Your task to perform on an android device: Open Android settings Image 0: 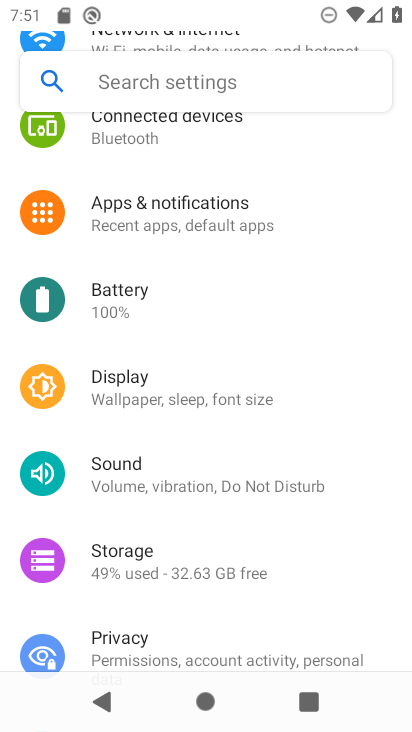
Step 0: drag from (255, 515) to (246, 142)
Your task to perform on an android device: Open Android settings Image 1: 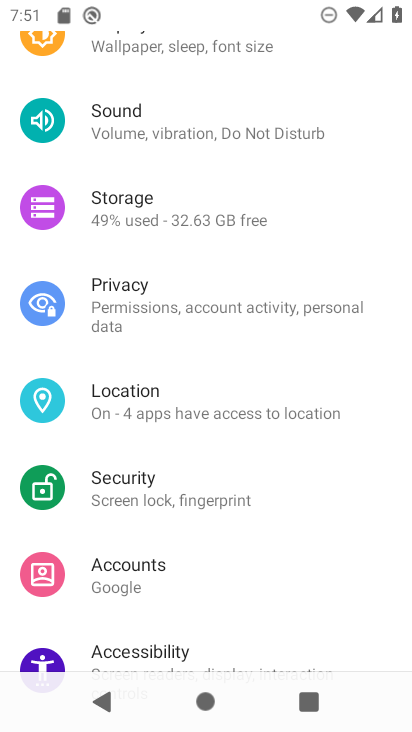
Step 1: drag from (190, 550) to (211, 92)
Your task to perform on an android device: Open Android settings Image 2: 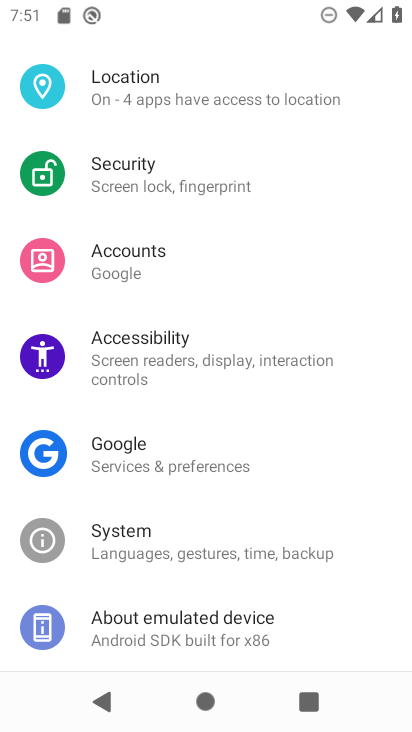
Step 2: click (206, 616)
Your task to perform on an android device: Open Android settings Image 3: 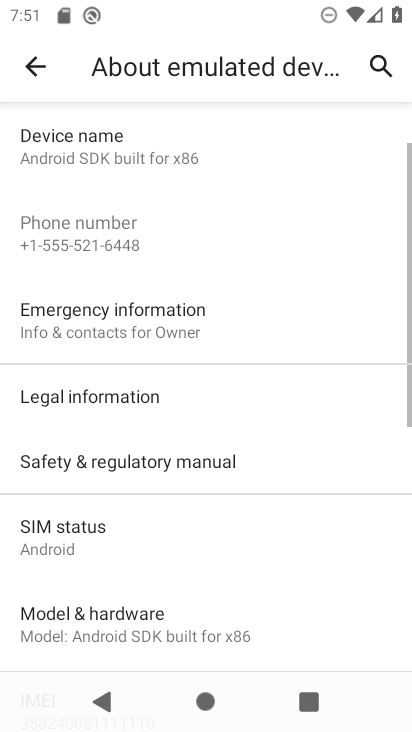
Step 3: task complete